Your task to perform on an android device: add a contact Image 0: 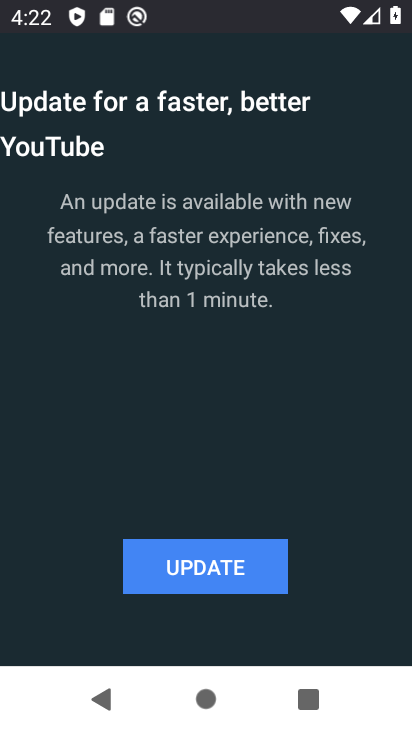
Step 0: press home button
Your task to perform on an android device: add a contact Image 1: 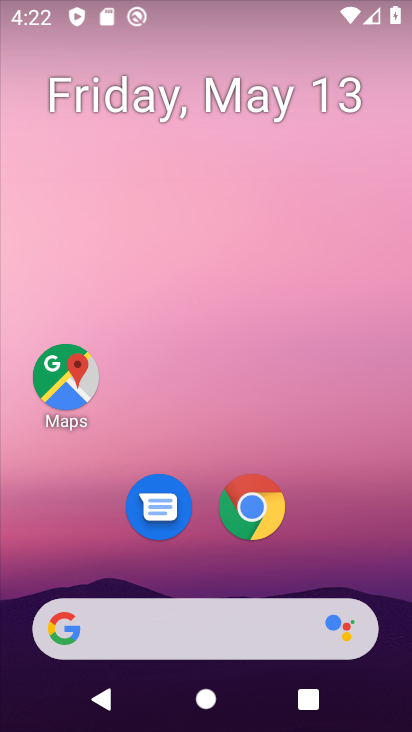
Step 1: drag from (345, 550) to (267, 77)
Your task to perform on an android device: add a contact Image 2: 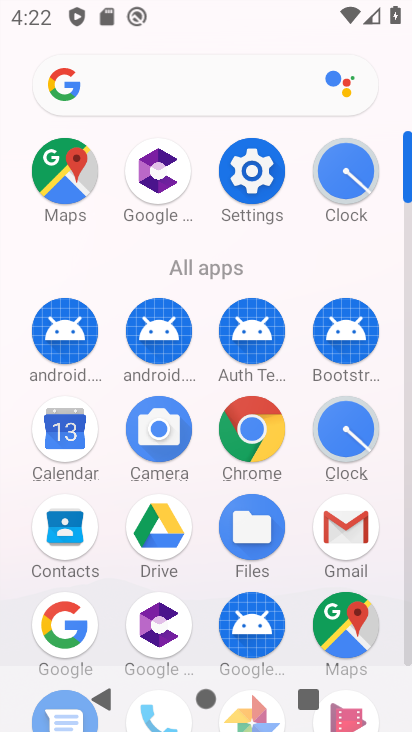
Step 2: drag from (210, 594) to (222, 190)
Your task to perform on an android device: add a contact Image 3: 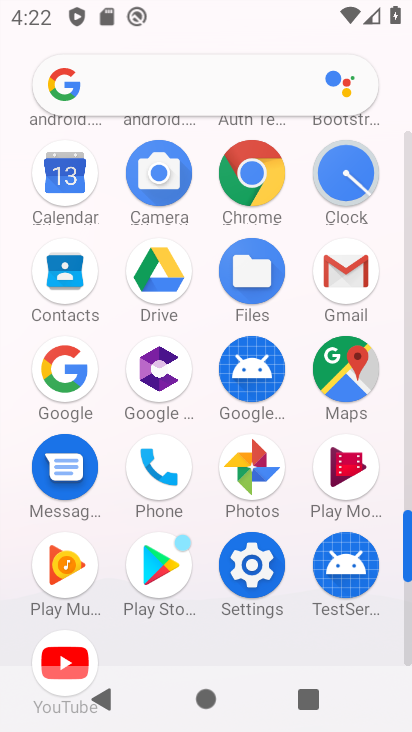
Step 3: click (35, 272)
Your task to perform on an android device: add a contact Image 4: 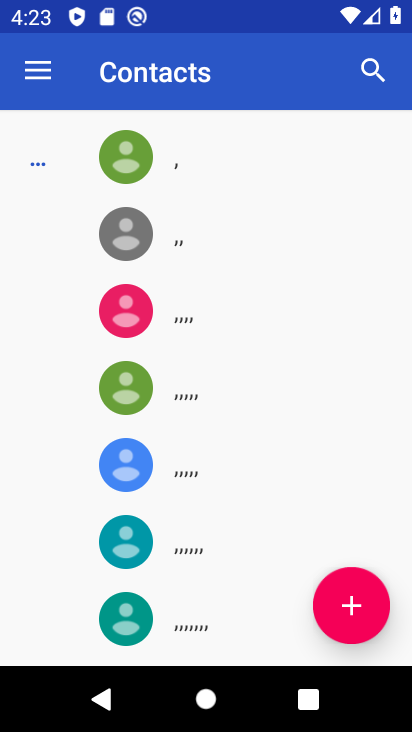
Step 4: click (356, 617)
Your task to perform on an android device: add a contact Image 5: 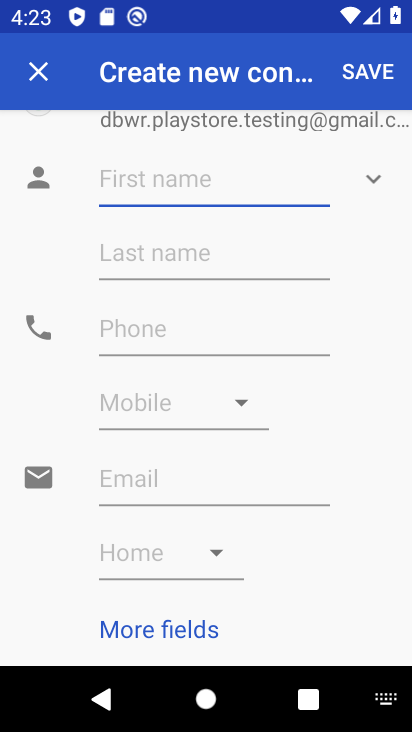
Step 5: type "gsdf"
Your task to perform on an android device: add a contact Image 6: 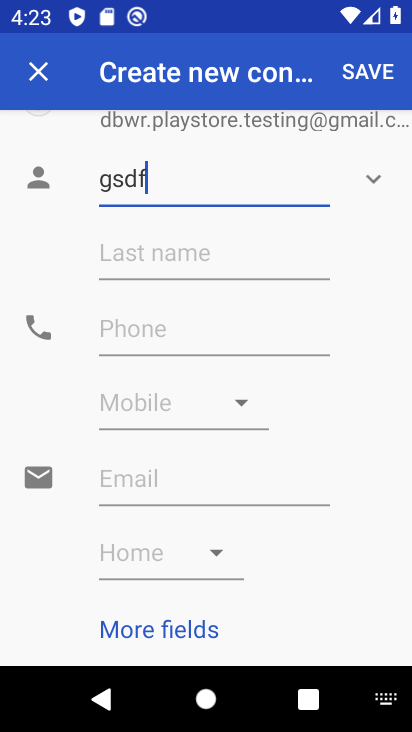
Step 6: type ""
Your task to perform on an android device: add a contact Image 7: 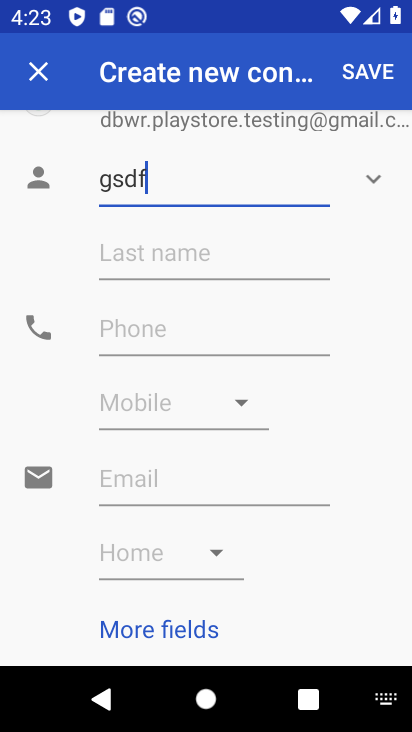
Step 7: click (290, 262)
Your task to perform on an android device: add a contact Image 8: 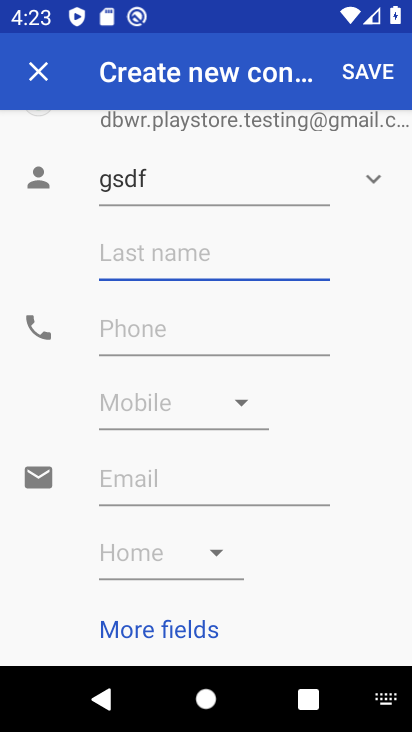
Step 8: type "gsdfs"
Your task to perform on an android device: add a contact Image 9: 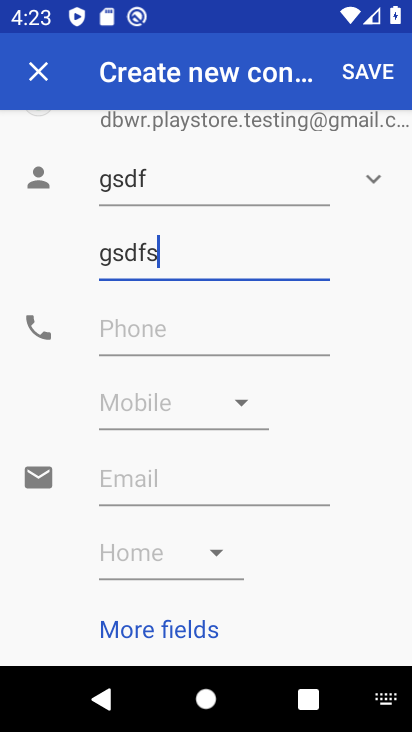
Step 9: type ""
Your task to perform on an android device: add a contact Image 10: 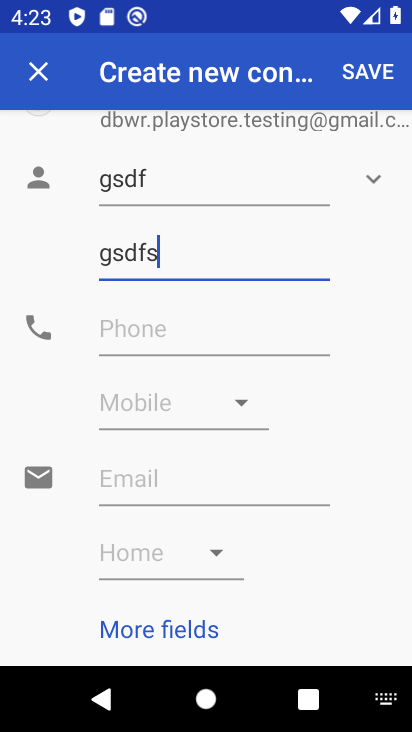
Step 10: click (241, 336)
Your task to perform on an android device: add a contact Image 11: 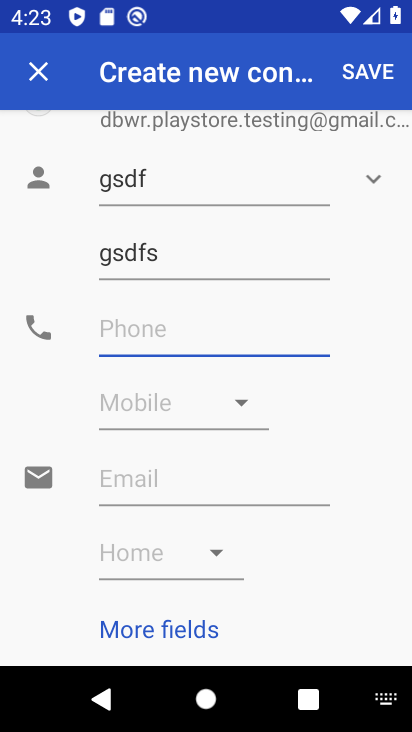
Step 11: type "634564564"
Your task to perform on an android device: add a contact Image 12: 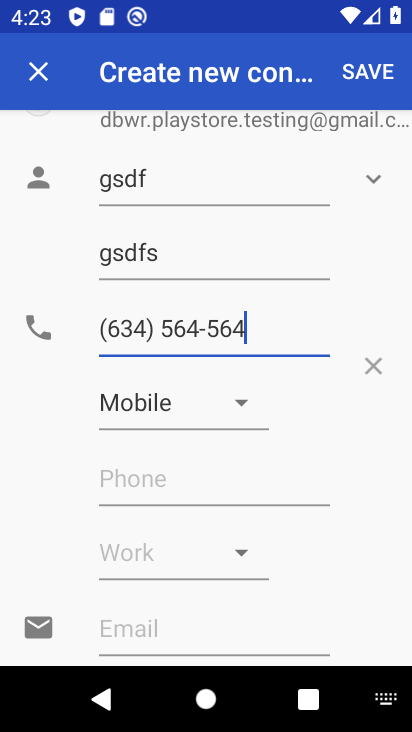
Step 12: click (373, 65)
Your task to perform on an android device: add a contact Image 13: 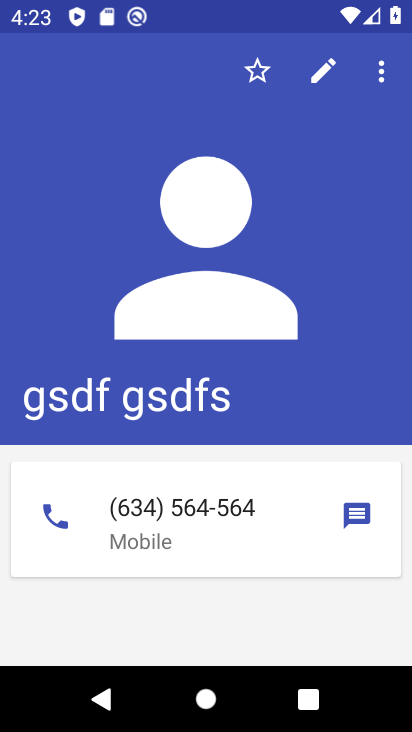
Step 13: task complete